Your task to perform on an android device: refresh tabs in the chrome app Image 0: 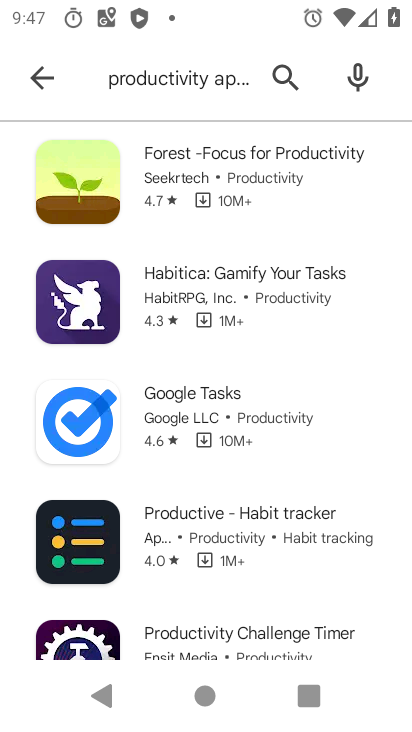
Step 0: press home button
Your task to perform on an android device: refresh tabs in the chrome app Image 1: 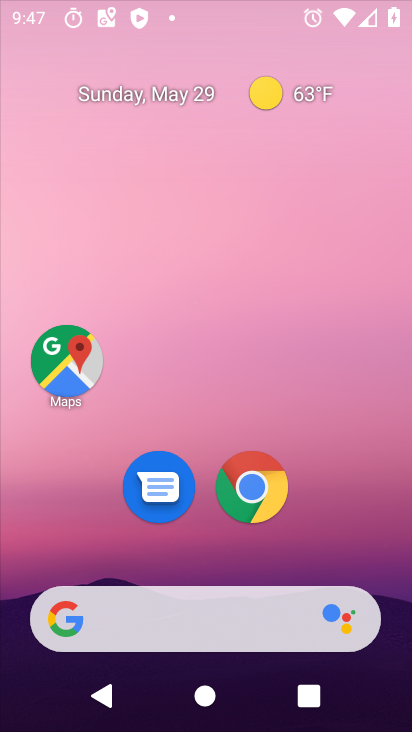
Step 1: drag from (293, 574) to (307, 158)
Your task to perform on an android device: refresh tabs in the chrome app Image 2: 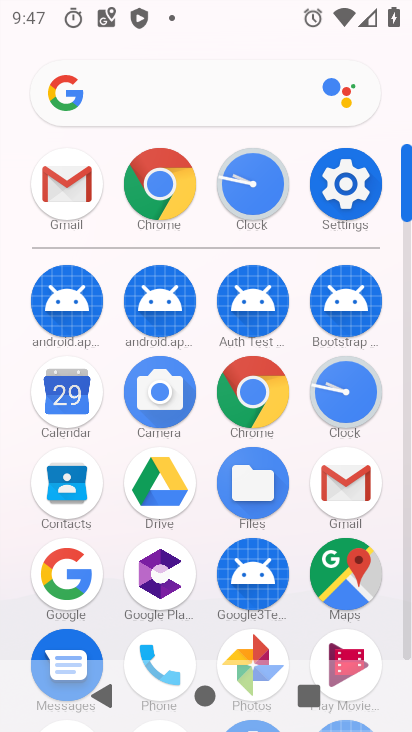
Step 2: click (262, 399)
Your task to perform on an android device: refresh tabs in the chrome app Image 3: 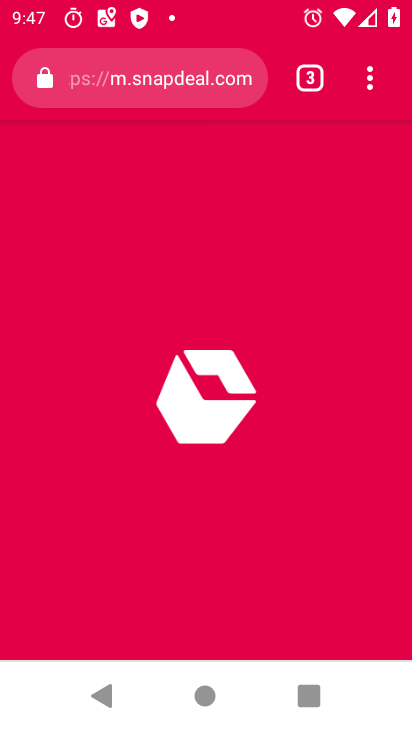
Step 3: click (370, 86)
Your task to perform on an android device: refresh tabs in the chrome app Image 4: 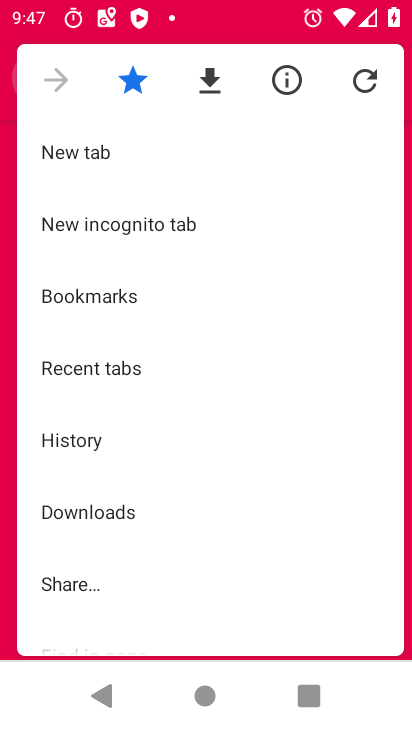
Step 4: click (401, 76)
Your task to perform on an android device: refresh tabs in the chrome app Image 5: 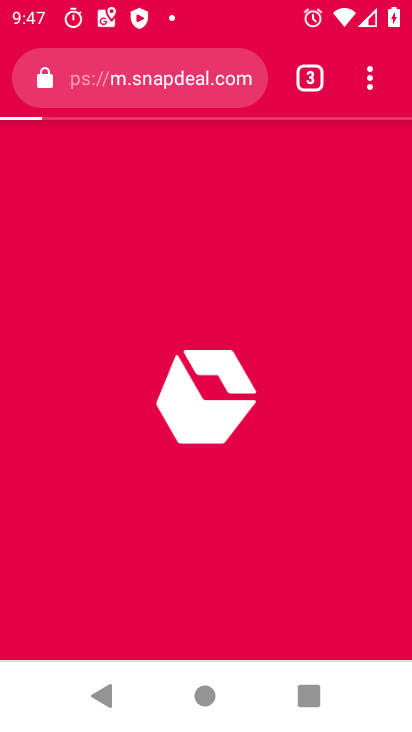
Step 5: click (375, 74)
Your task to perform on an android device: refresh tabs in the chrome app Image 6: 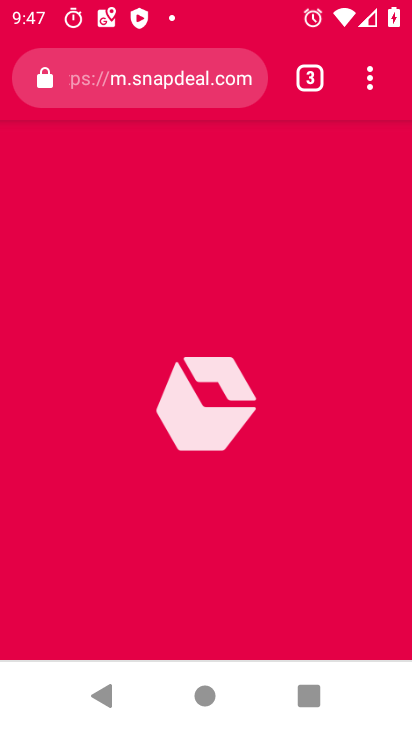
Step 6: task complete